Your task to perform on an android device: What's the weather? Image 0: 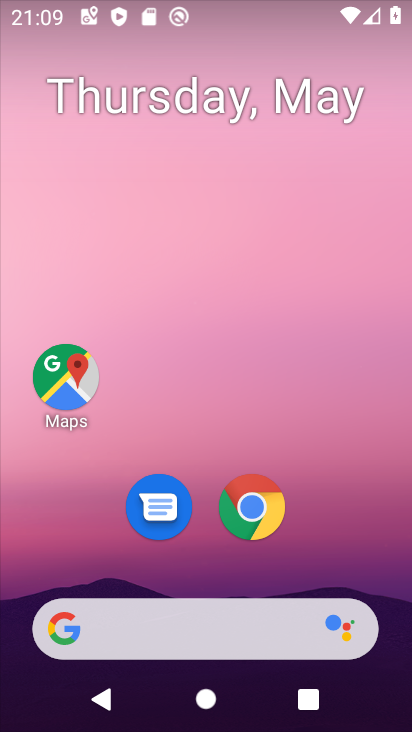
Step 0: drag from (253, 601) to (243, 58)
Your task to perform on an android device: What's the weather? Image 1: 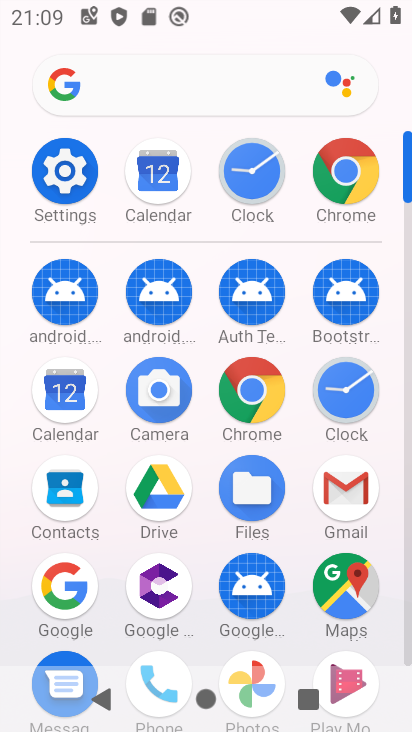
Step 1: click (166, 103)
Your task to perform on an android device: What's the weather? Image 2: 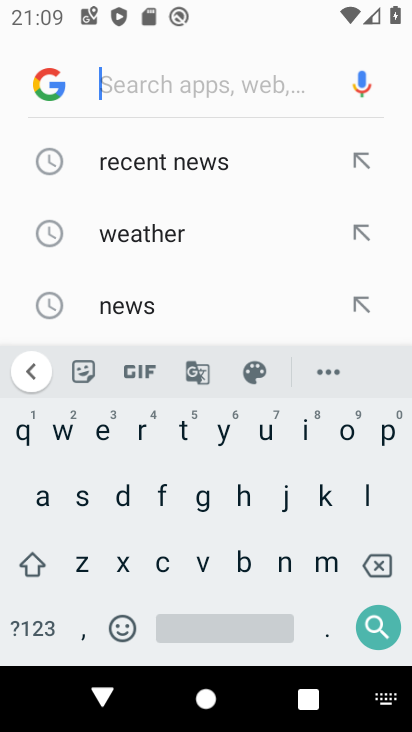
Step 2: click (163, 227)
Your task to perform on an android device: What's the weather? Image 3: 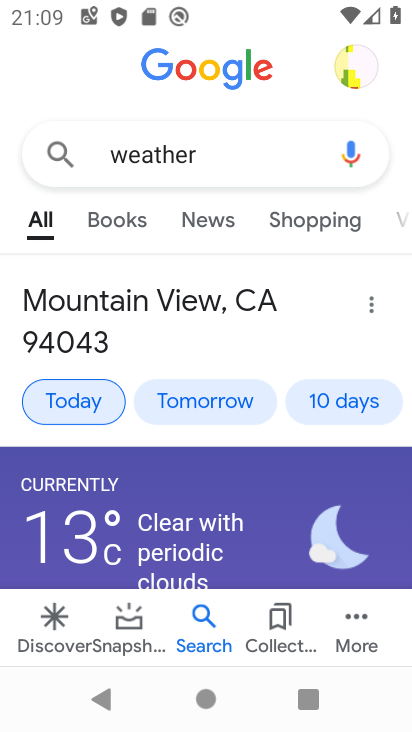
Step 3: task complete